Your task to perform on an android device: allow cookies in the chrome app Image 0: 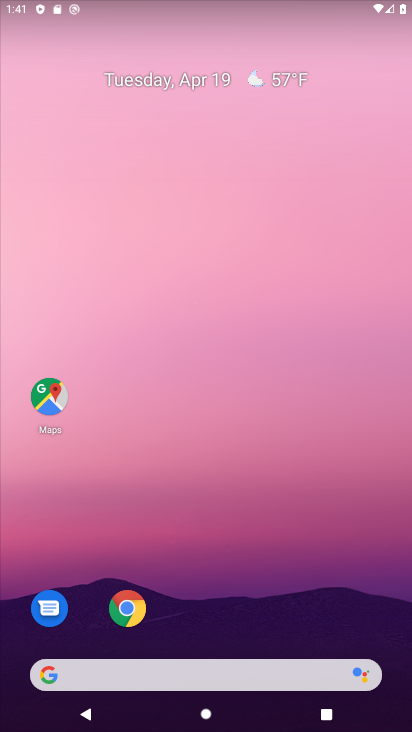
Step 0: drag from (201, 394) to (182, 191)
Your task to perform on an android device: allow cookies in the chrome app Image 1: 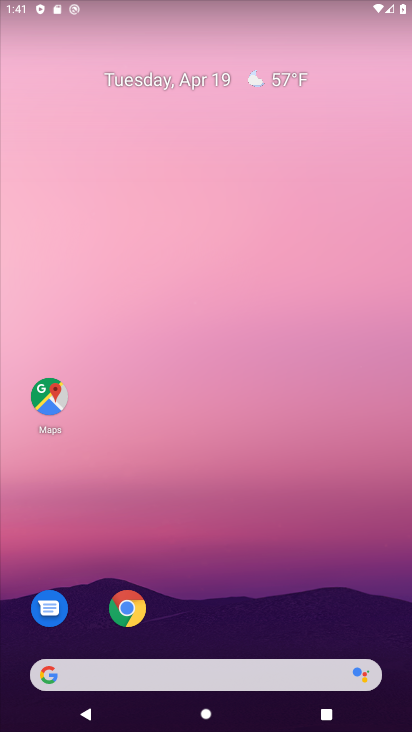
Step 1: click (128, 603)
Your task to perform on an android device: allow cookies in the chrome app Image 2: 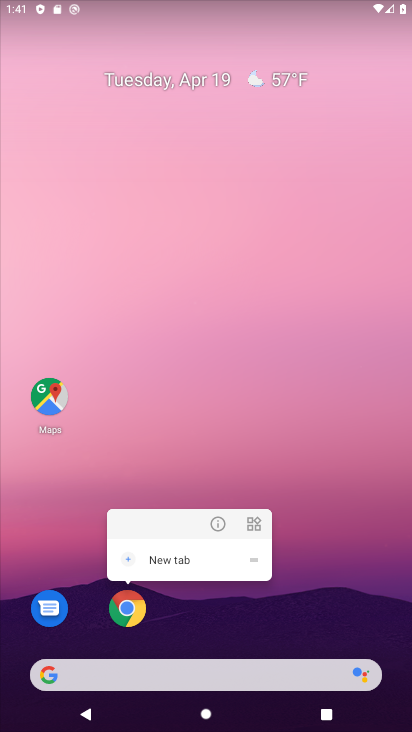
Step 2: click (128, 603)
Your task to perform on an android device: allow cookies in the chrome app Image 3: 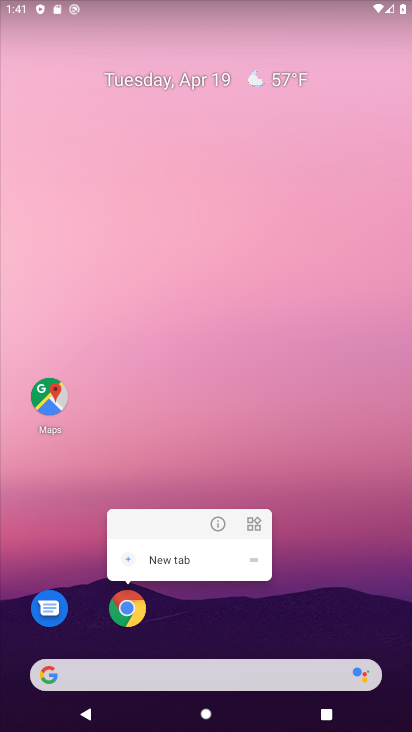
Step 3: click (129, 618)
Your task to perform on an android device: allow cookies in the chrome app Image 4: 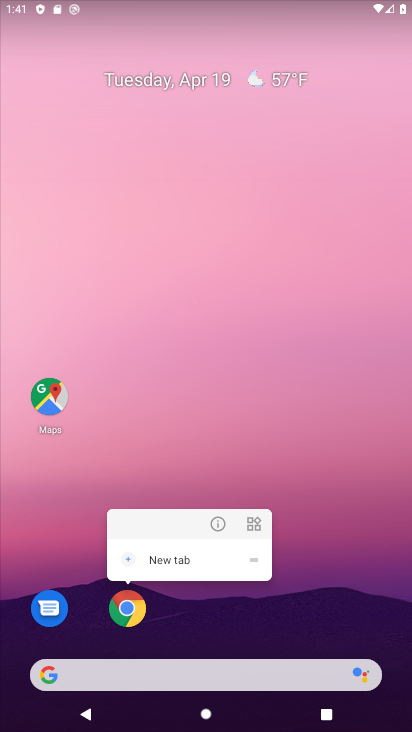
Step 4: click (129, 618)
Your task to perform on an android device: allow cookies in the chrome app Image 5: 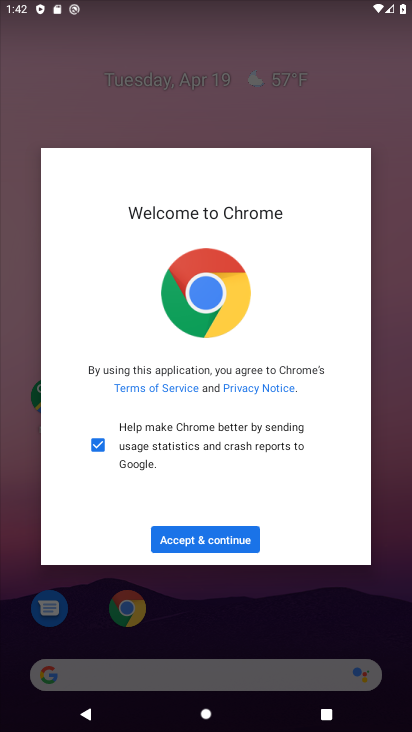
Step 5: click (198, 543)
Your task to perform on an android device: allow cookies in the chrome app Image 6: 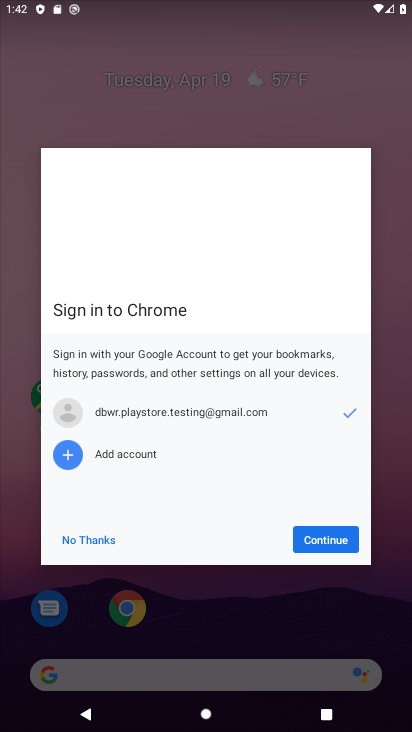
Step 6: click (306, 552)
Your task to perform on an android device: allow cookies in the chrome app Image 7: 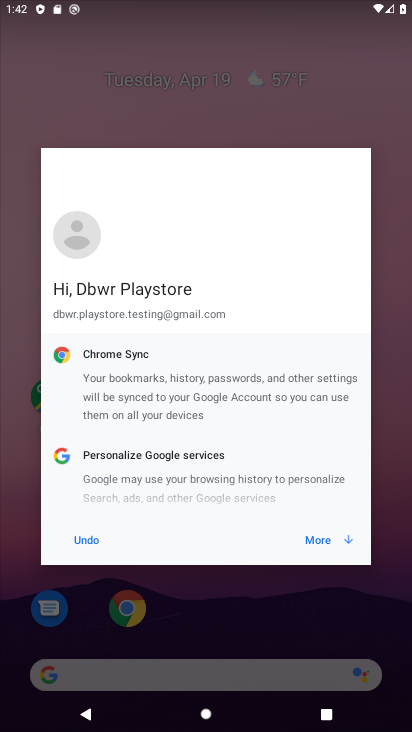
Step 7: click (326, 541)
Your task to perform on an android device: allow cookies in the chrome app Image 8: 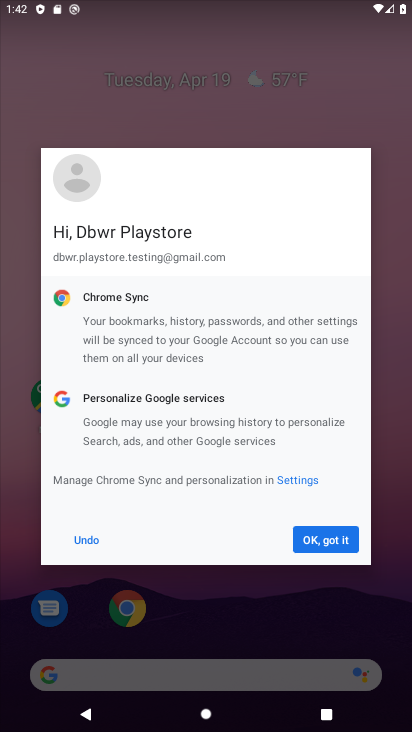
Step 8: click (326, 541)
Your task to perform on an android device: allow cookies in the chrome app Image 9: 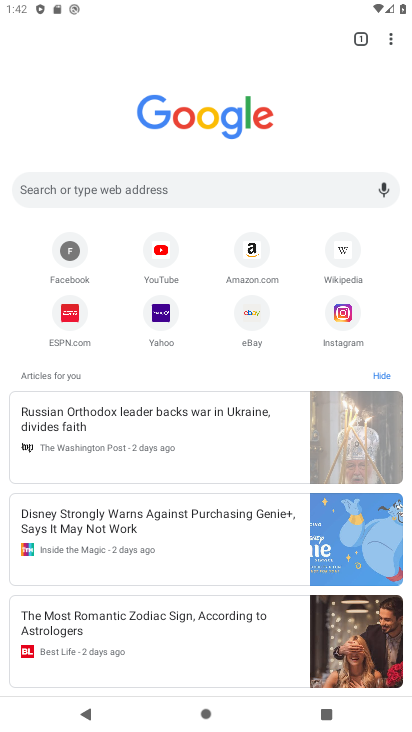
Step 9: click (390, 40)
Your task to perform on an android device: allow cookies in the chrome app Image 10: 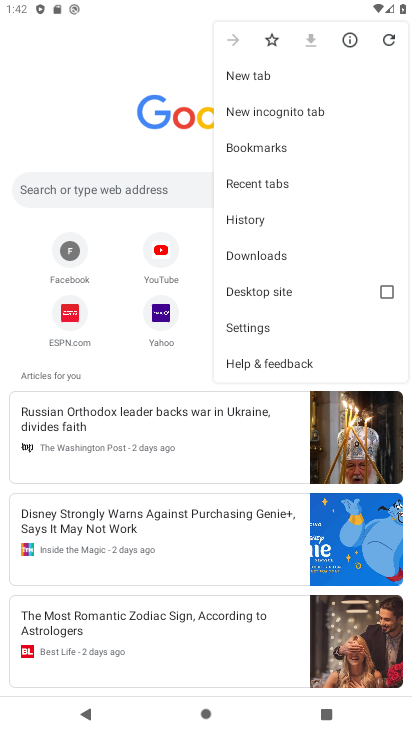
Step 10: click (267, 329)
Your task to perform on an android device: allow cookies in the chrome app Image 11: 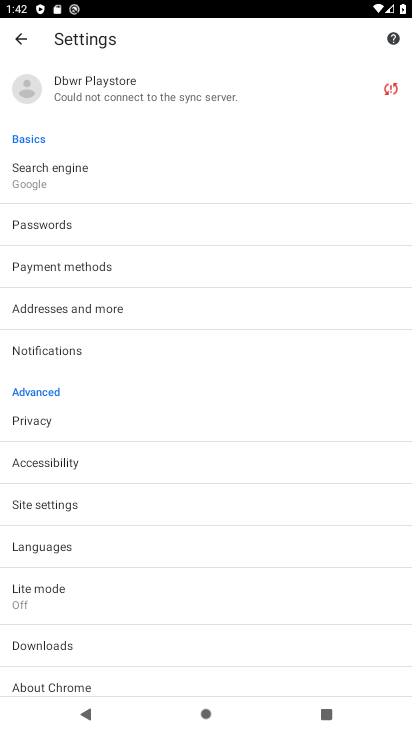
Step 11: click (26, 500)
Your task to perform on an android device: allow cookies in the chrome app Image 12: 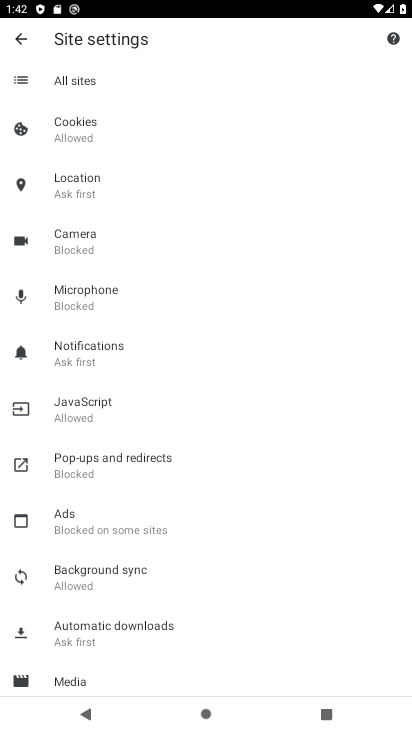
Step 12: click (70, 136)
Your task to perform on an android device: allow cookies in the chrome app Image 13: 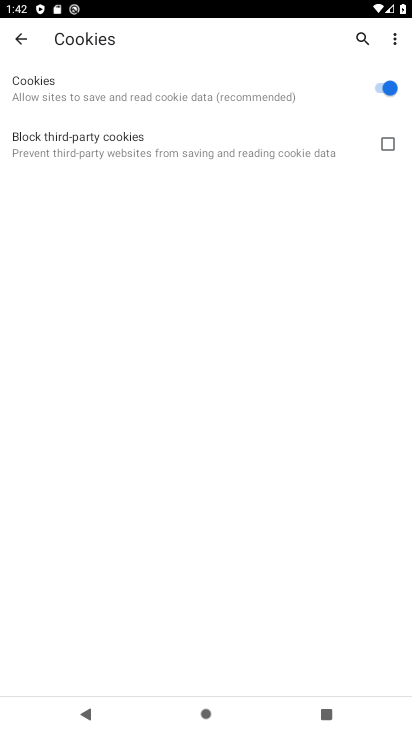
Step 13: task complete